Your task to perform on an android device: Search for Mexican restaurants on Maps Image 0: 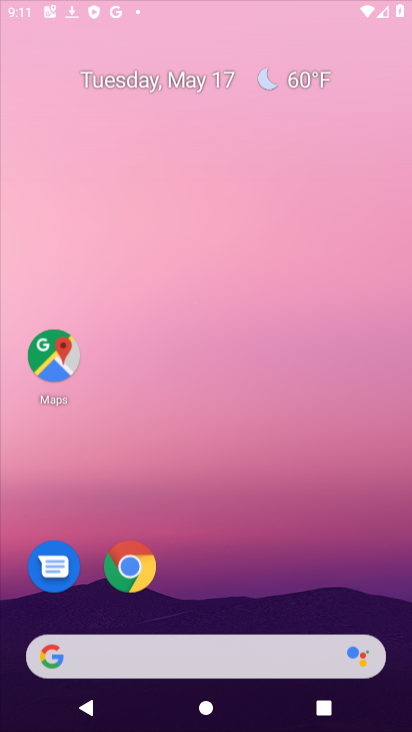
Step 0: drag from (350, 593) to (245, 26)
Your task to perform on an android device: Search for Mexican restaurants on Maps Image 1: 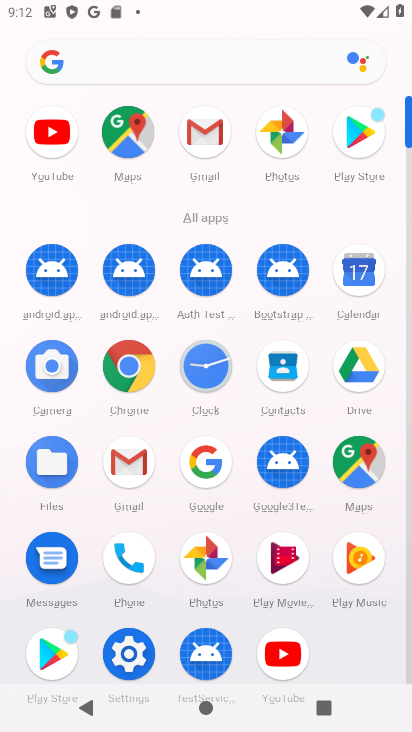
Step 1: click (363, 464)
Your task to perform on an android device: Search for Mexican restaurants on Maps Image 2: 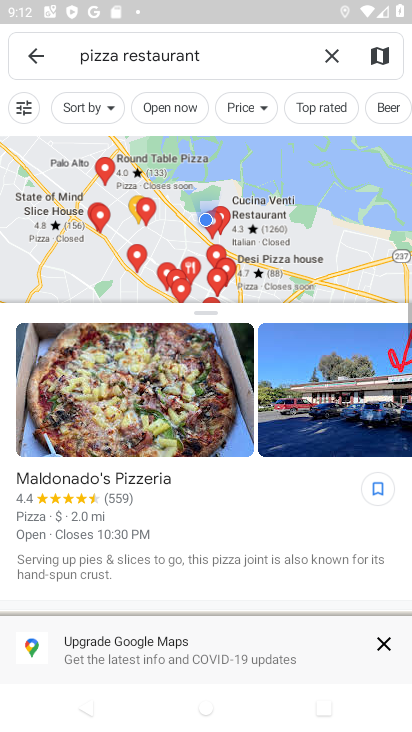
Step 2: click (331, 50)
Your task to perform on an android device: Search for Mexican restaurants on Maps Image 3: 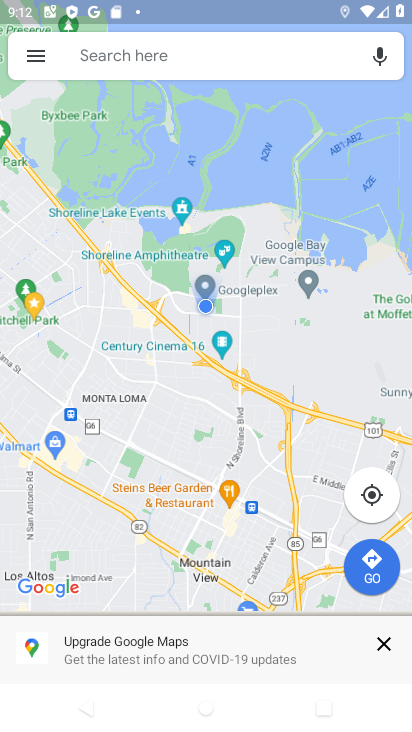
Step 3: click (140, 45)
Your task to perform on an android device: Search for Mexican restaurants on Maps Image 4: 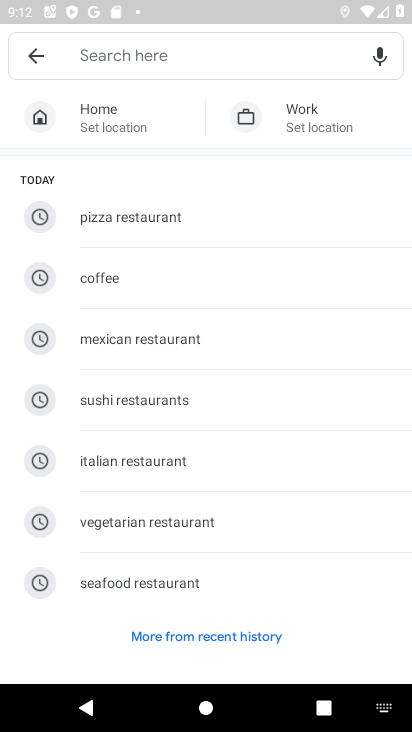
Step 4: click (187, 334)
Your task to perform on an android device: Search for Mexican restaurants on Maps Image 5: 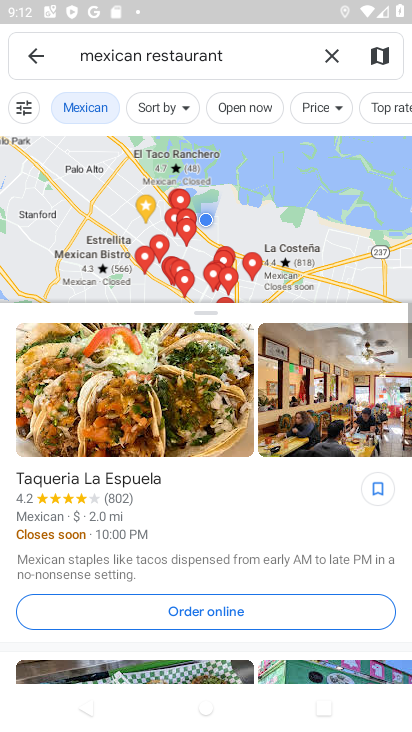
Step 5: task complete